Your task to perform on an android device: Open Chrome and go to settings Image 0: 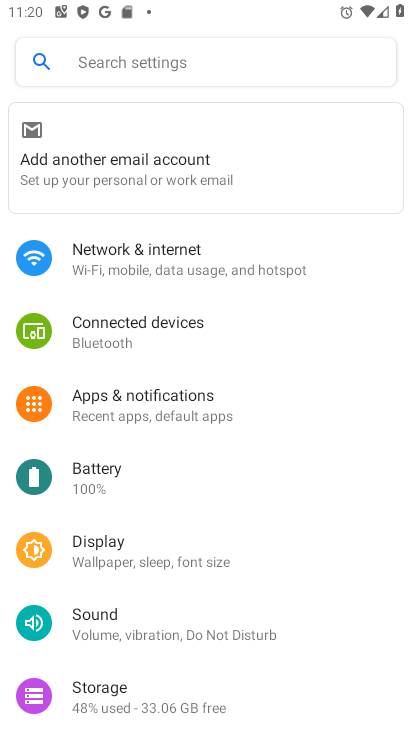
Step 0: press home button
Your task to perform on an android device: Open Chrome and go to settings Image 1: 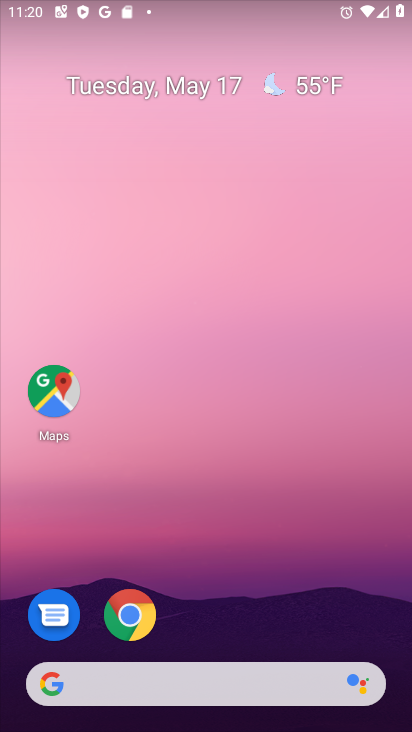
Step 1: click (134, 608)
Your task to perform on an android device: Open Chrome and go to settings Image 2: 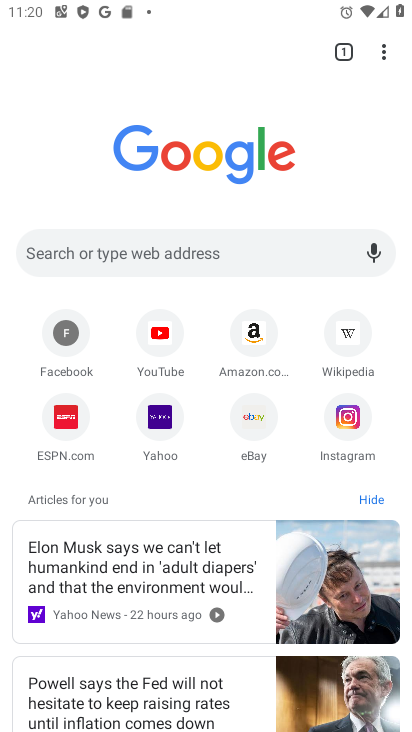
Step 2: task complete